Your task to perform on an android device: manage bookmarks in the chrome app Image 0: 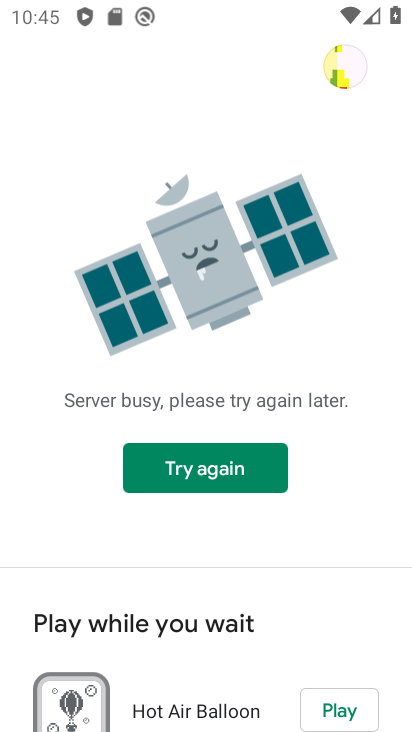
Step 0: press home button
Your task to perform on an android device: manage bookmarks in the chrome app Image 1: 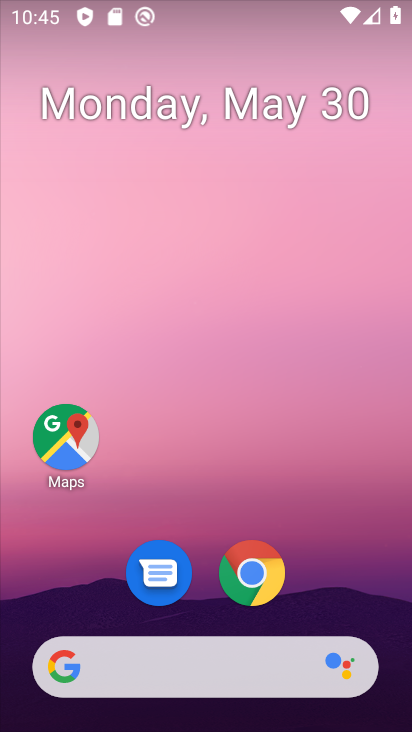
Step 1: click (264, 594)
Your task to perform on an android device: manage bookmarks in the chrome app Image 2: 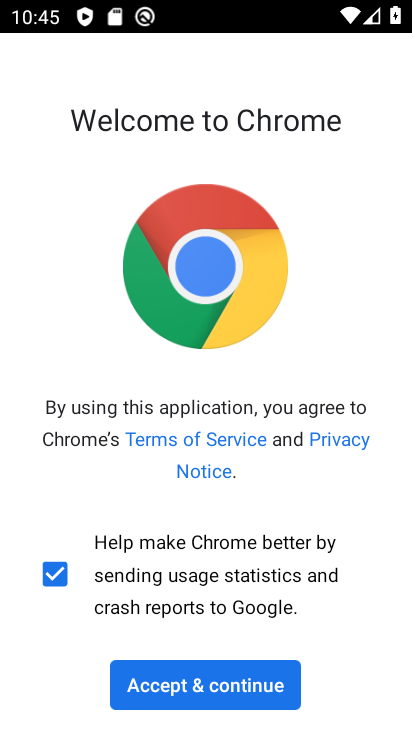
Step 2: click (270, 678)
Your task to perform on an android device: manage bookmarks in the chrome app Image 3: 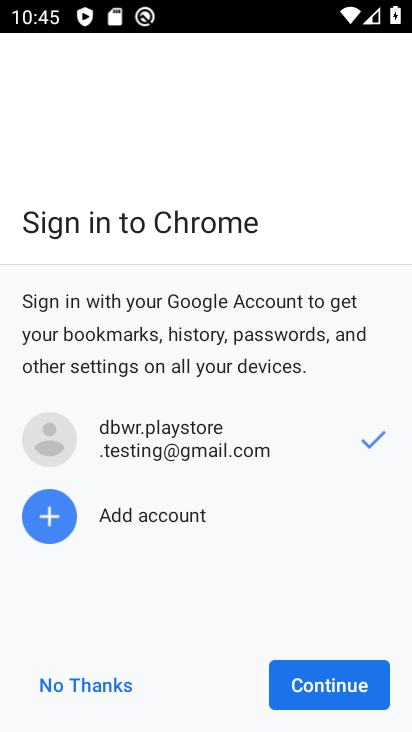
Step 3: click (375, 711)
Your task to perform on an android device: manage bookmarks in the chrome app Image 4: 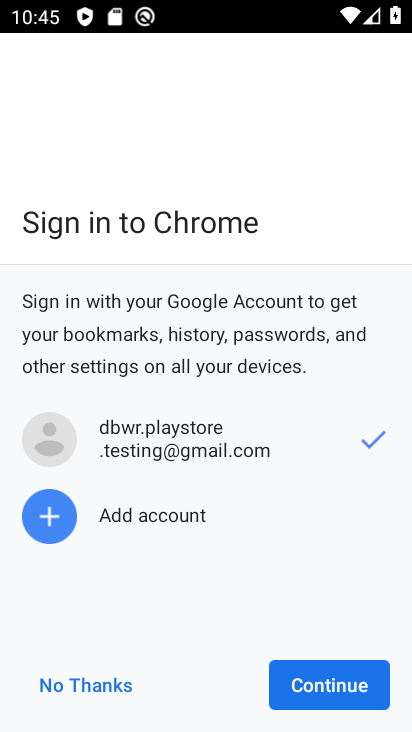
Step 4: click (363, 695)
Your task to perform on an android device: manage bookmarks in the chrome app Image 5: 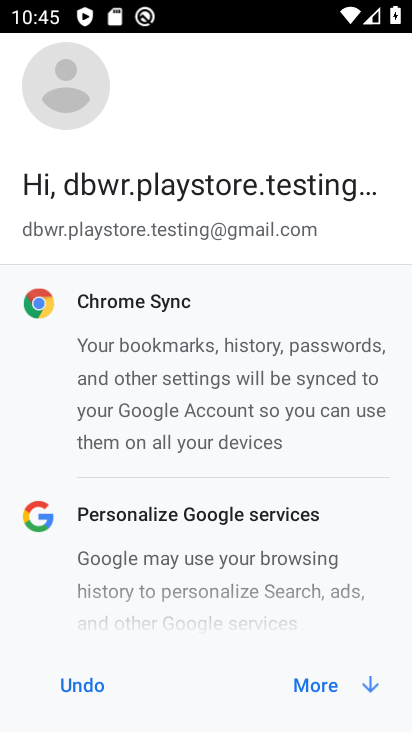
Step 5: click (324, 690)
Your task to perform on an android device: manage bookmarks in the chrome app Image 6: 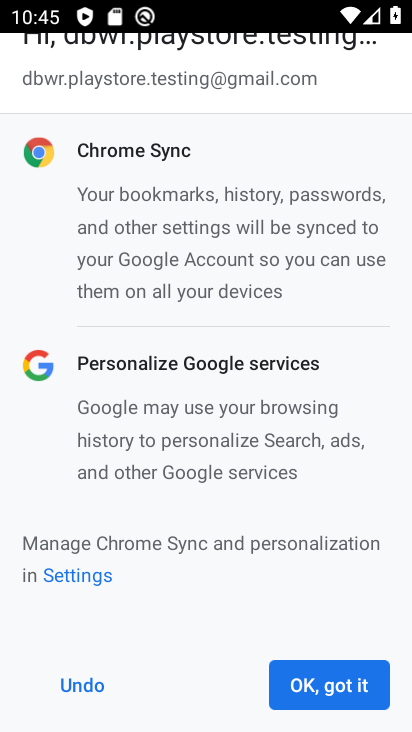
Step 6: click (324, 690)
Your task to perform on an android device: manage bookmarks in the chrome app Image 7: 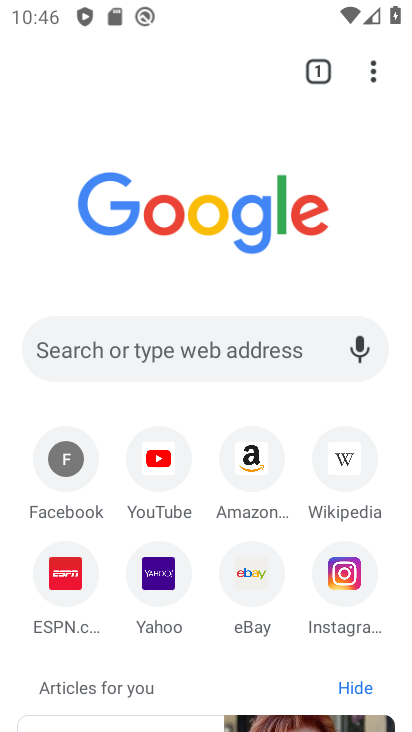
Step 7: task complete